Your task to perform on an android device: Go to display settings Image 0: 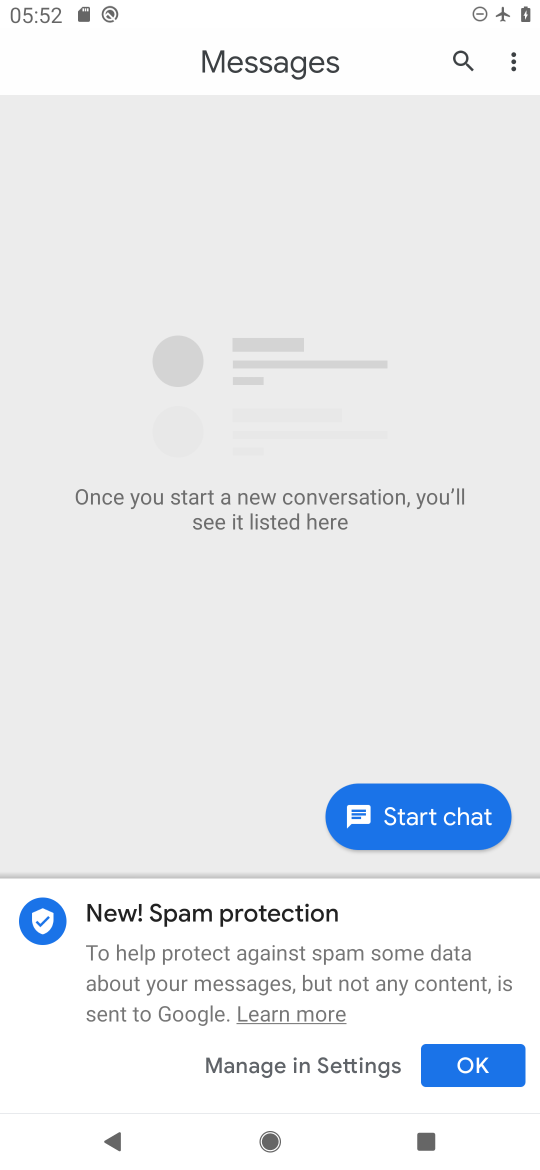
Step 0: press home button
Your task to perform on an android device: Go to display settings Image 1: 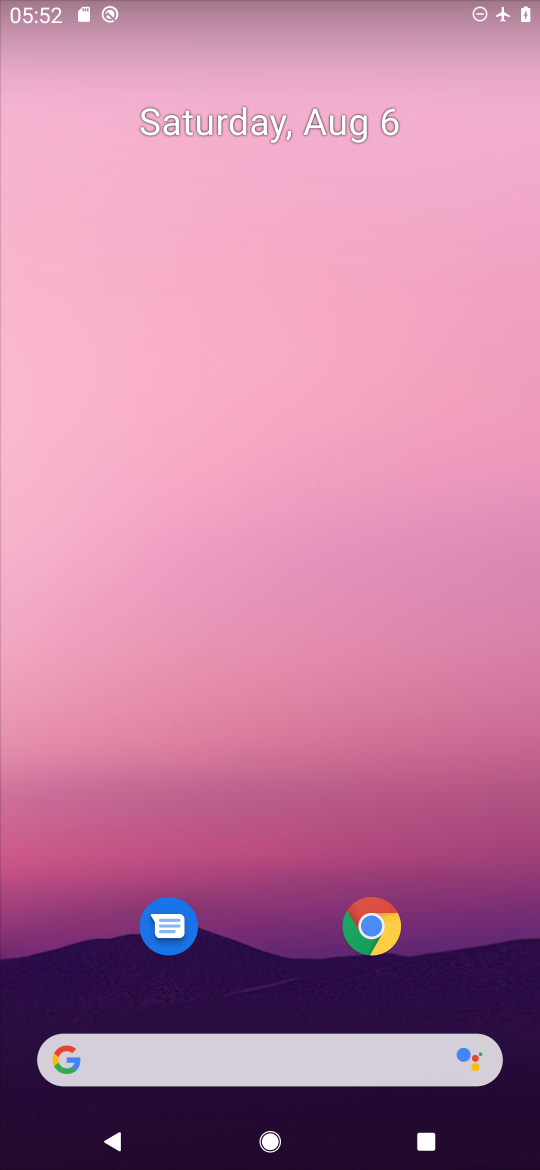
Step 1: drag from (265, 983) to (265, 291)
Your task to perform on an android device: Go to display settings Image 2: 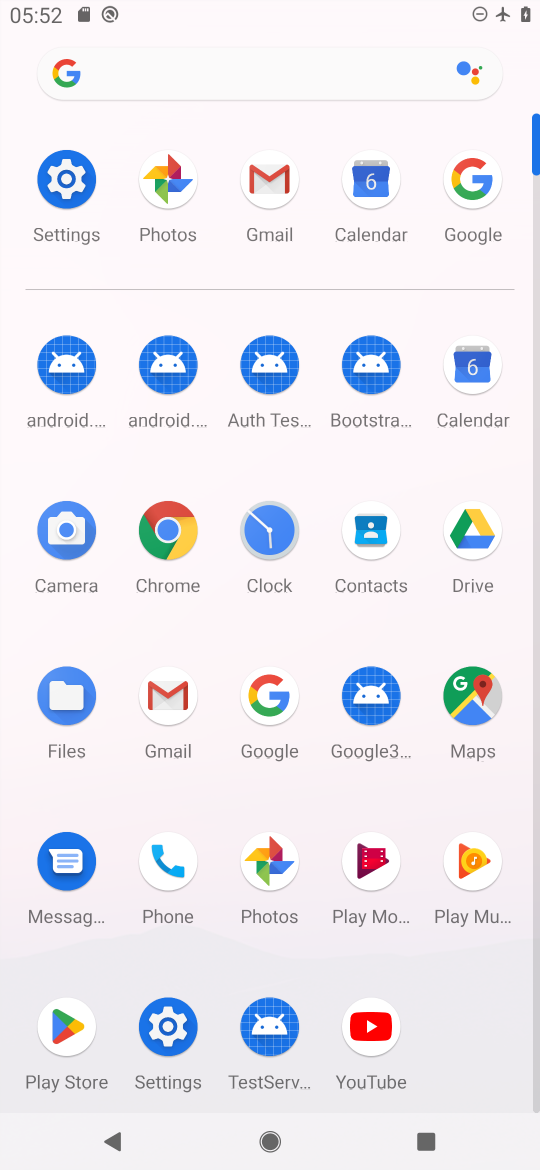
Step 2: click (75, 189)
Your task to perform on an android device: Go to display settings Image 3: 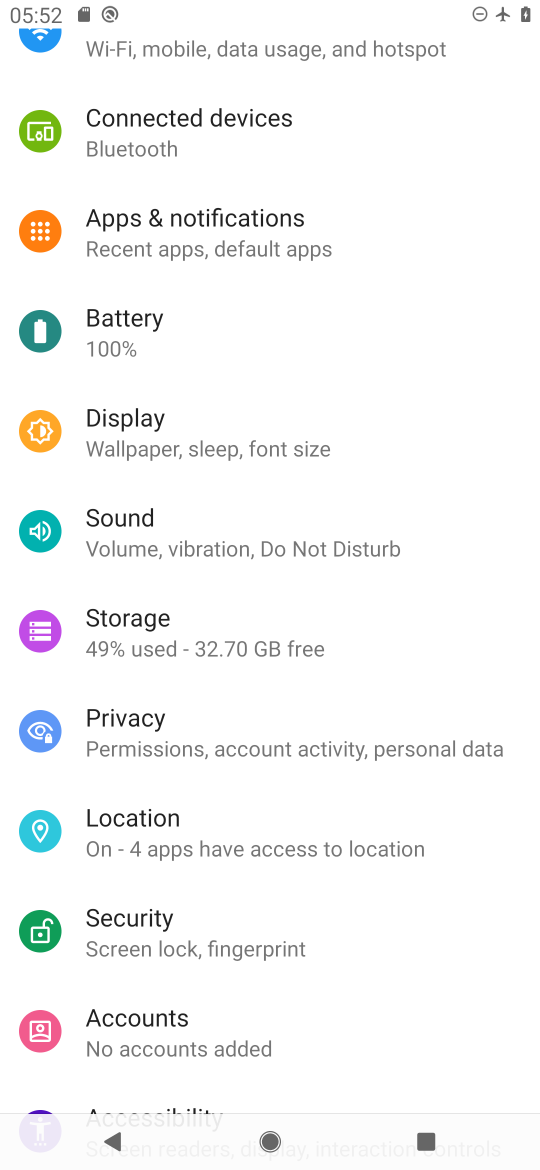
Step 3: click (202, 418)
Your task to perform on an android device: Go to display settings Image 4: 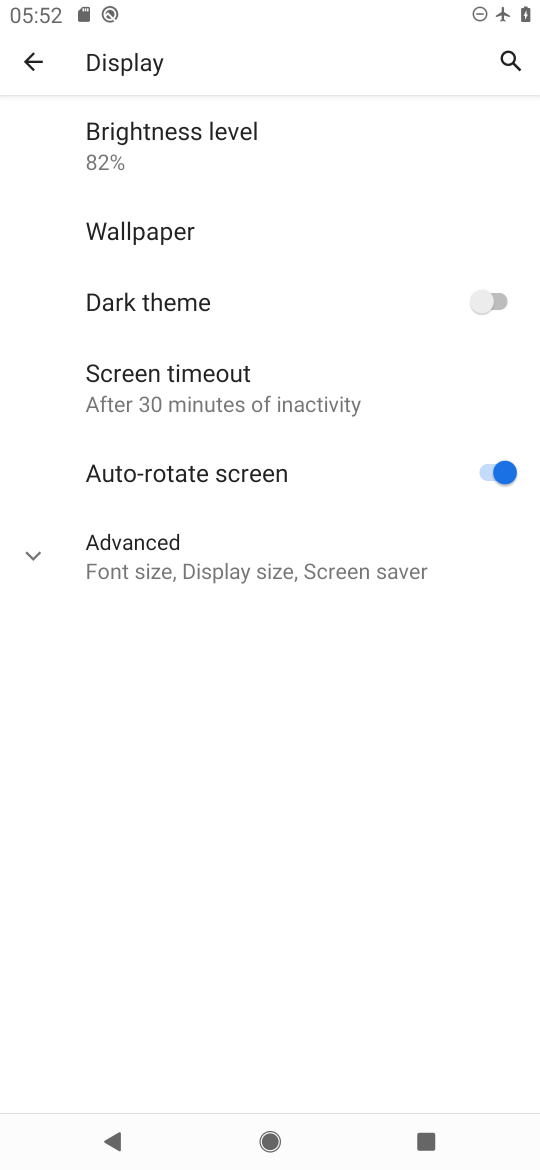
Step 4: task complete